Your task to perform on an android device: find photos in the google photos app Image 0: 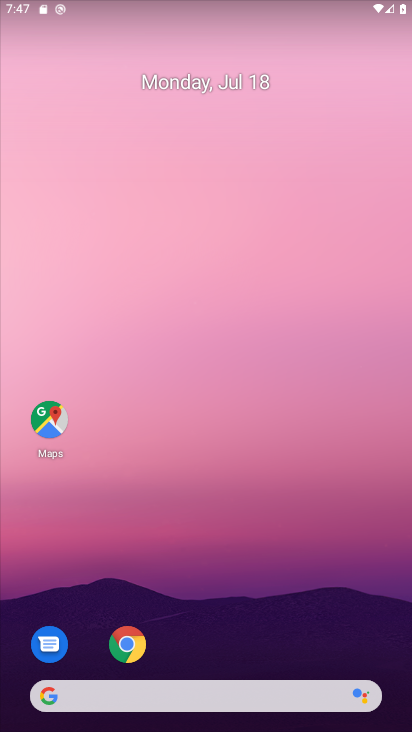
Step 0: drag from (285, 654) to (287, 198)
Your task to perform on an android device: find photos in the google photos app Image 1: 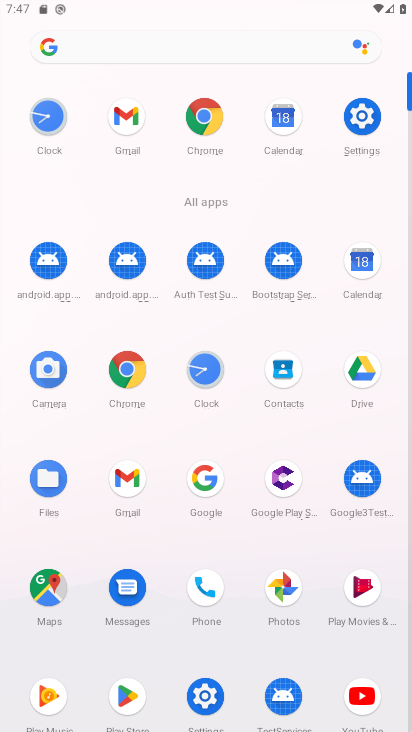
Step 1: click (282, 585)
Your task to perform on an android device: find photos in the google photos app Image 2: 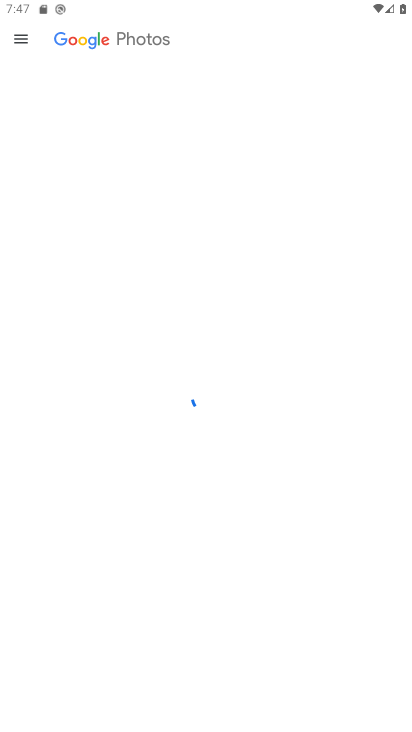
Step 2: task complete